Your task to perform on an android device: toggle priority inbox in the gmail app Image 0: 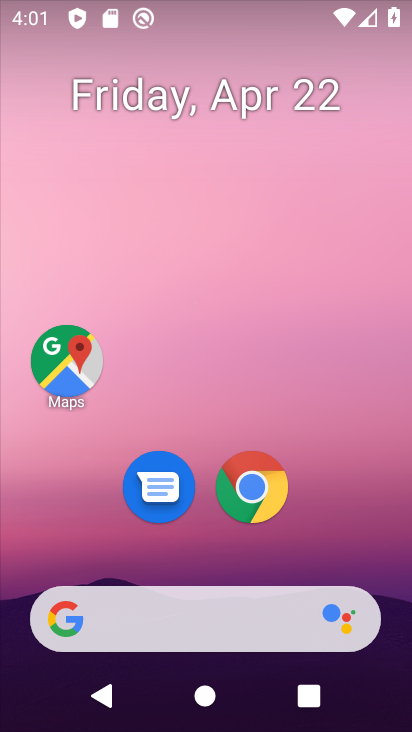
Step 0: drag from (340, 553) to (395, 87)
Your task to perform on an android device: toggle priority inbox in the gmail app Image 1: 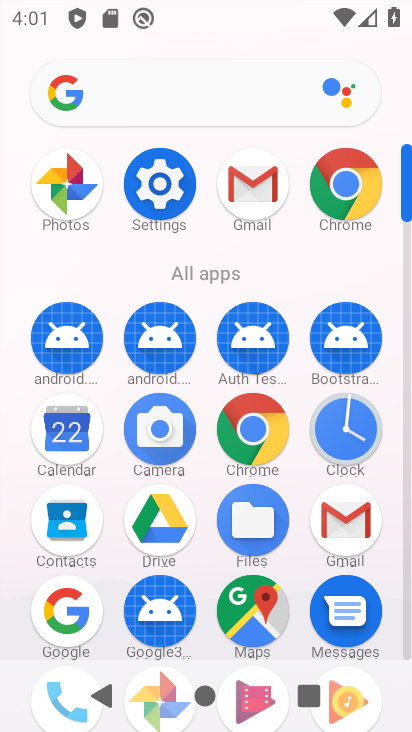
Step 1: click (256, 186)
Your task to perform on an android device: toggle priority inbox in the gmail app Image 2: 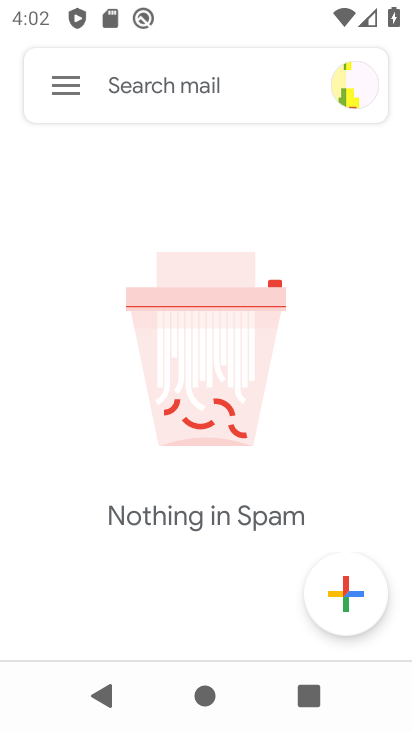
Step 2: click (82, 98)
Your task to perform on an android device: toggle priority inbox in the gmail app Image 3: 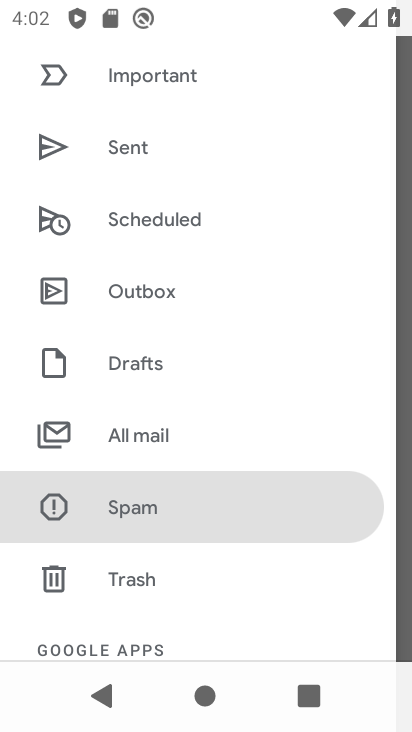
Step 3: drag from (148, 566) to (186, 154)
Your task to perform on an android device: toggle priority inbox in the gmail app Image 4: 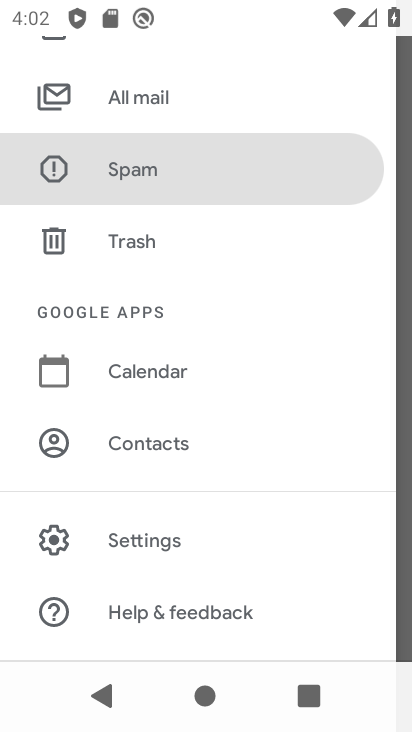
Step 4: click (169, 542)
Your task to perform on an android device: toggle priority inbox in the gmail app Image 5: 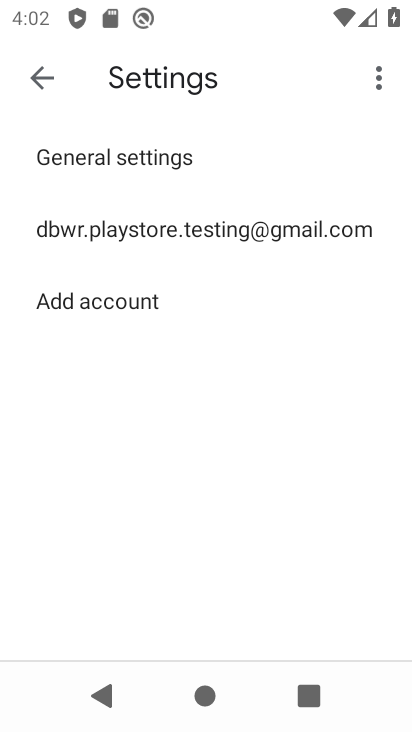
Step 5: click (160, 239)
Your task to perform on an android device: toggle priority inbox in the gmail app Image 6: 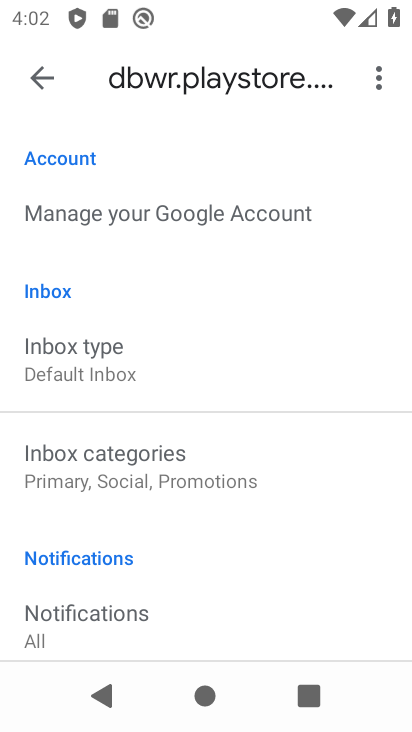
Step 6: click (166, 384)
Your task to perform on an android device: toggle priority inbox in the gmail app Image 7: 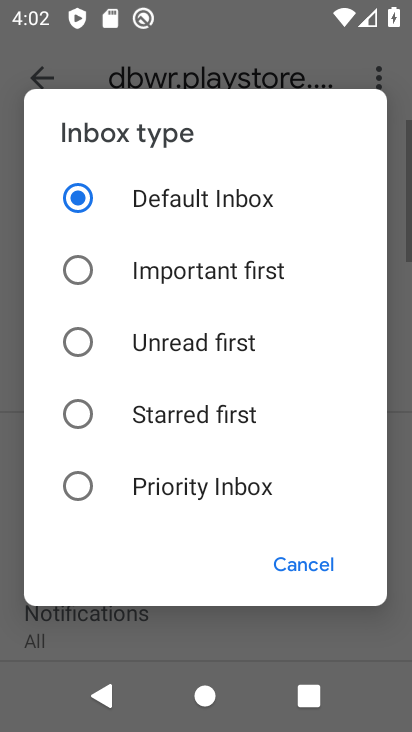
Step 7: click (136, 487)
Your task to perform on an android device: toggle priority inbox in the gmail app Image 8: 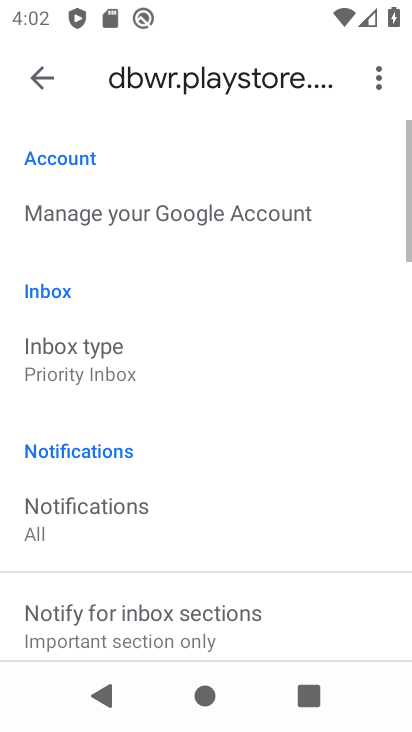
Step 8: task complete